Your task to perform on an android device: turn on the 12-hour format for clock Image 0: 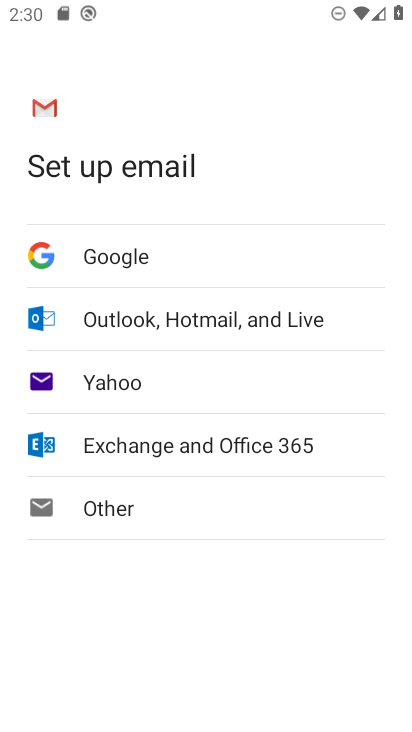
Step 0: press home button
Your task to perform on an android device: turn on the 12-hour format for clock Image 1: 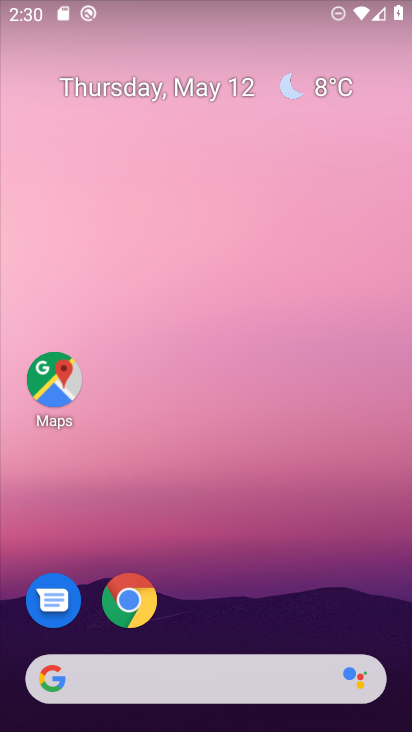
Step 1: drag from (212, 714) to (210, 328)
Your task to perform on an android device: turn on the 12-hour format for clock Image 2: 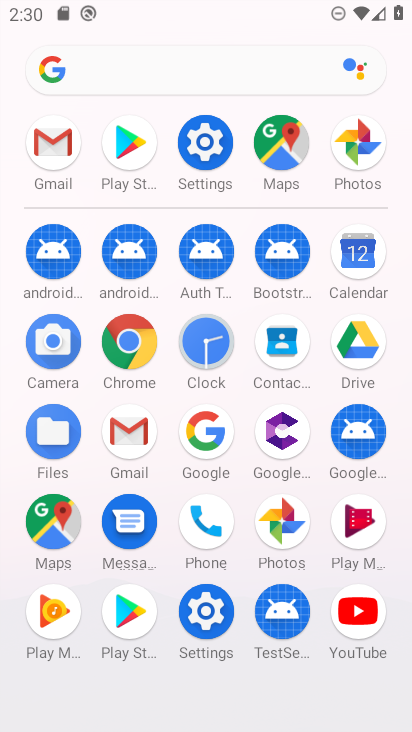
Step 2: click (201, 346)
Your task to perform on an android device: turn on the 12-hour format for clock Image 3: 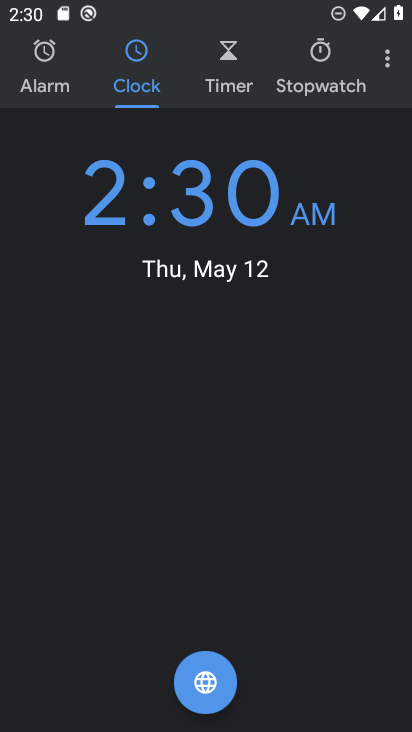
Step 3: click (388, 60)
Your task to perform on an android device: turn on the 12-hour format for clock Image 4: 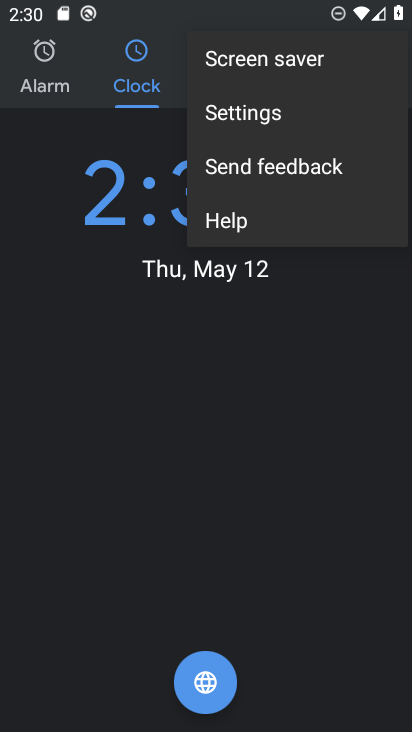
Step 4: click (263, 107)
Your task to perform on an android device: turn on the 12-hour format for clock Image 5: 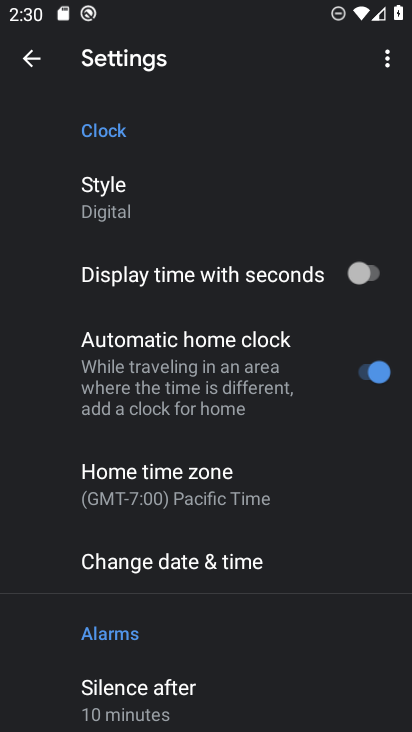
Step 5: click (182, 560)
Your task to perform on an android device: turn on the 12-hour format for clock Image 6: 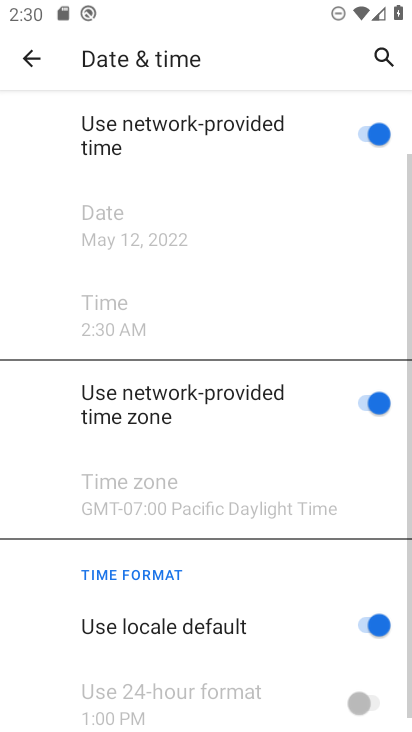
Step 6: task complete